Your task to perform on an android device: change your default location settings in chrome Image 0: 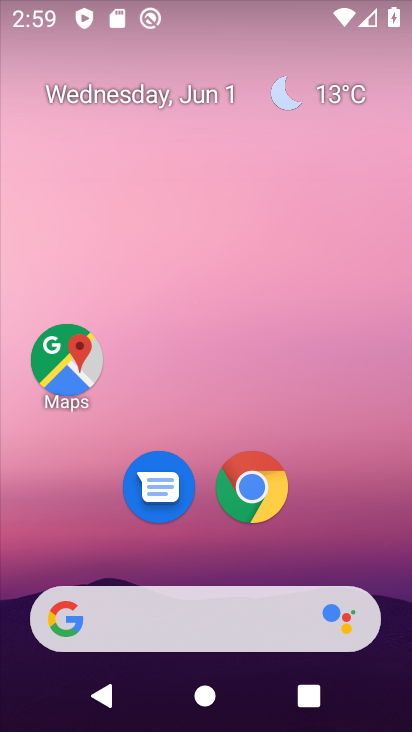
Step 0: click (275, 496)
Your task to perform on an android device: change your default location settings in chrome Image 1: 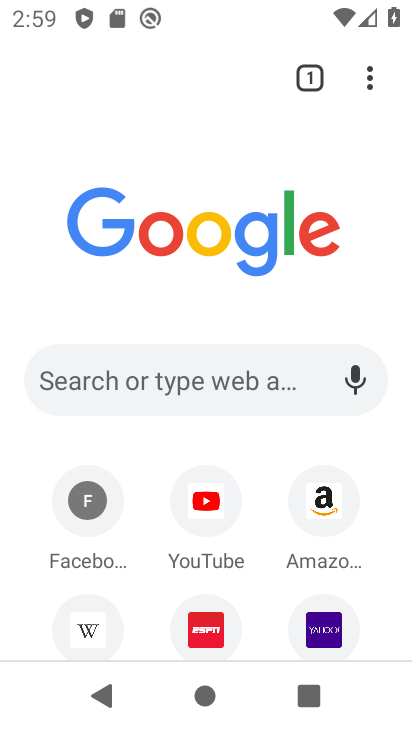
Step 1: click (373, 66)
Your task to perform on an android device: change your default location settings in chrome Image 2: 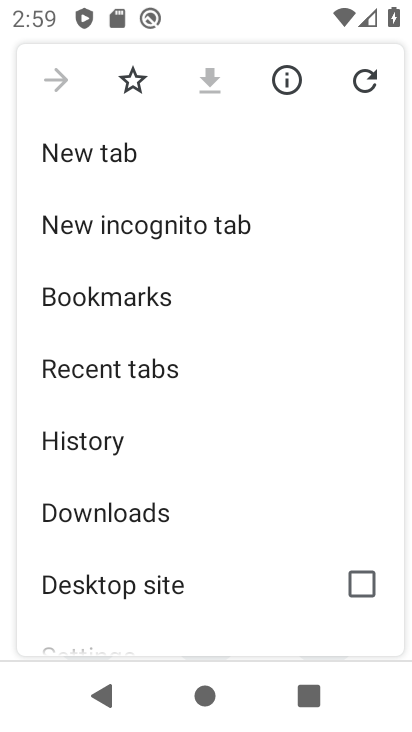
Step 2: drag from (210, 558) to (174, 335)
Your task to perform on an android device: change your default location settings in chrome Image 3: 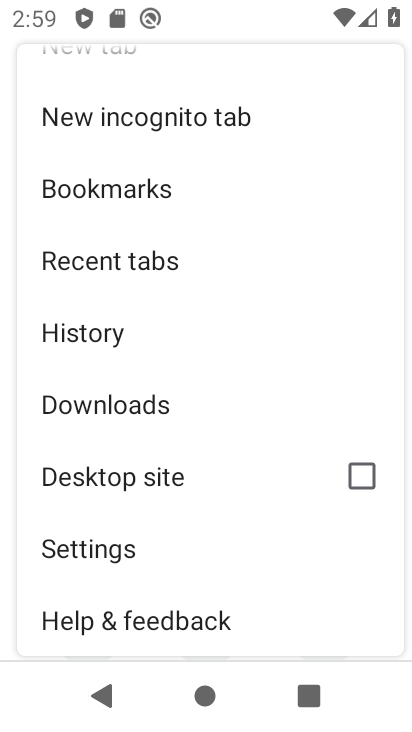
Step 3: click (168, 547)
Your task to perform on an android device: change your default location settings in chrome Image 4: 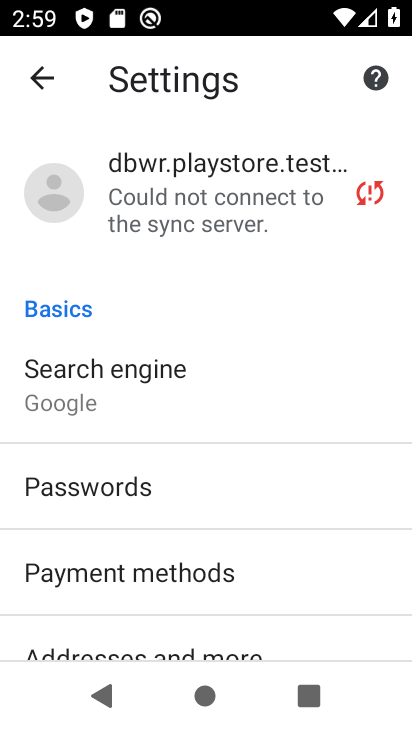
Step 4: drag from (207, 589) to (165, 289)
Your task to perform on an android device: change your default location settings in chrome Image 5: 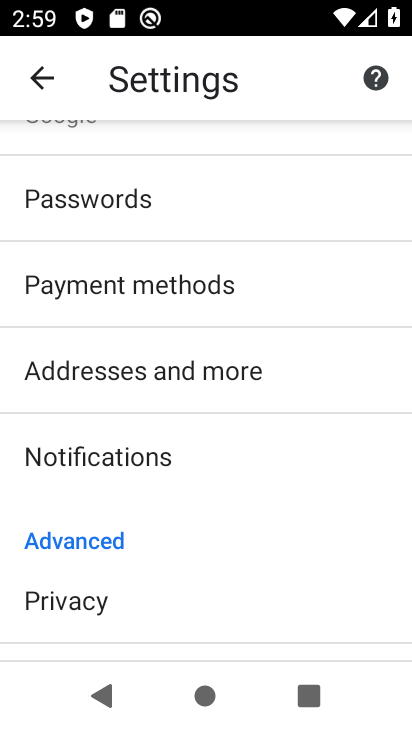
Step 5: drag from (177, 589) to (142, 293)
Your task to perform on an android device: change your default location settings in chrome Image 6: 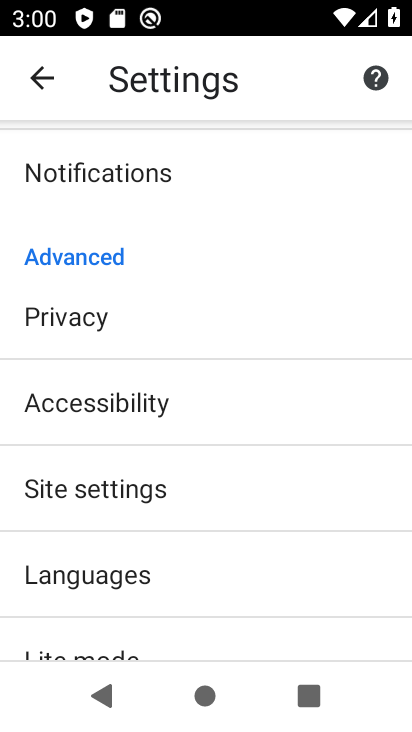
Step 6: drag from (213, 558) to (183, 430)
Your task to perform on an android device: change your default location settings in chrome Image 7: 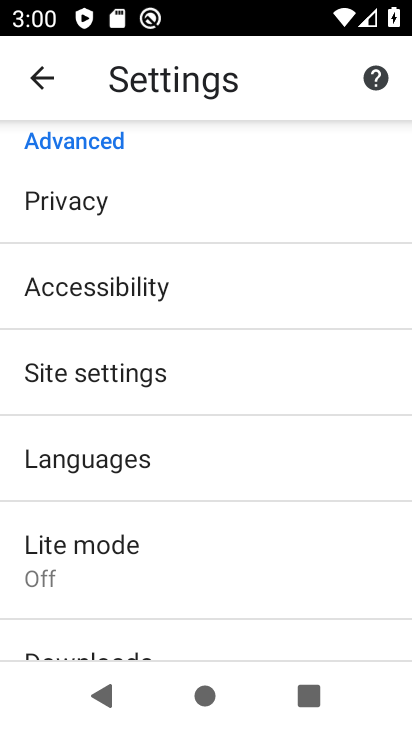
Step 7: click (164, 370)
Your task to perform on an android device: change your default location settings in chrome Image 8: 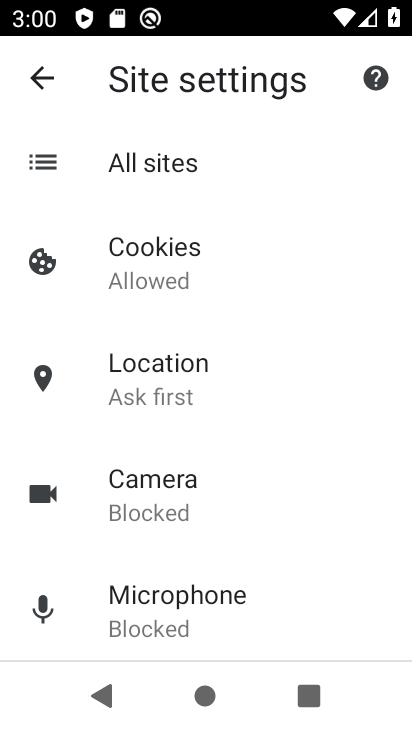
Step 8: click (228, 371)
Your task to perform on an android device: change your default location settings in chrome Image 9: 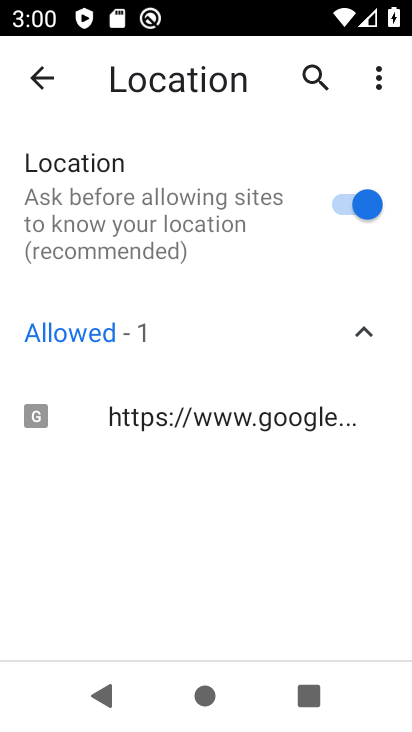
Step 9: task complete